Your task to perform on an android device: Go to wifi settings Image 0: 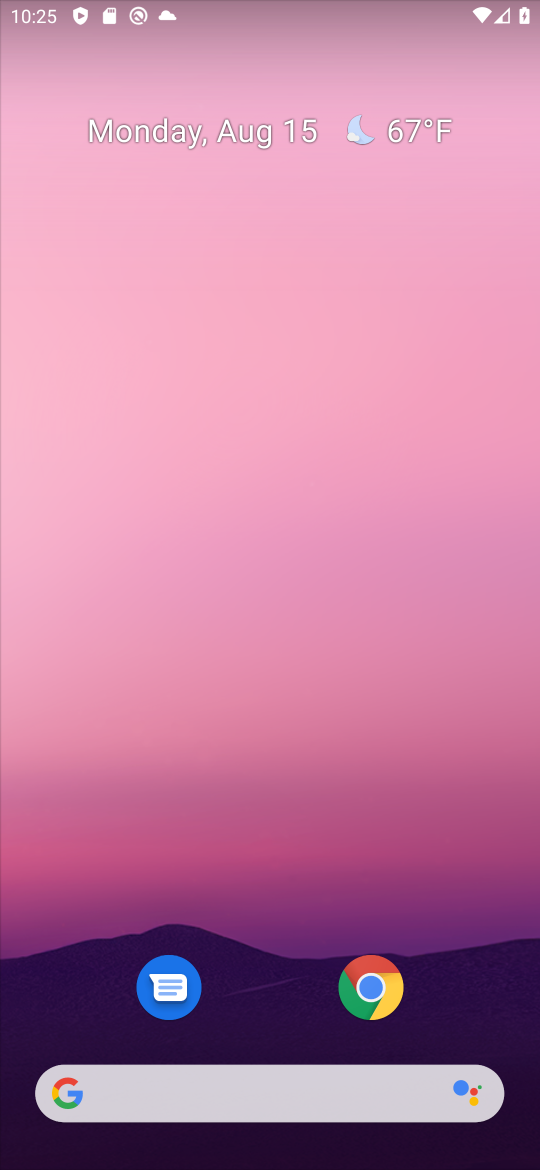
Step 0: drag from (315, 1071) to (449, 35)
Your task to perform on an android device: Go to wifi settings Image 1: 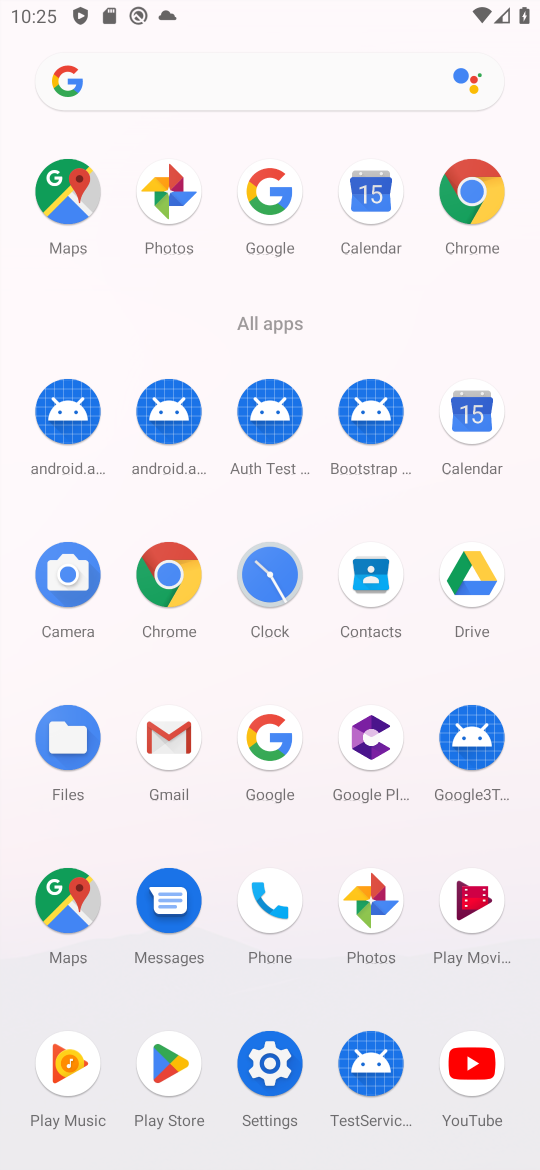
Step 1: click (271, 1071)
Your task to perform on an android device: Go to wifi settings Image 2: 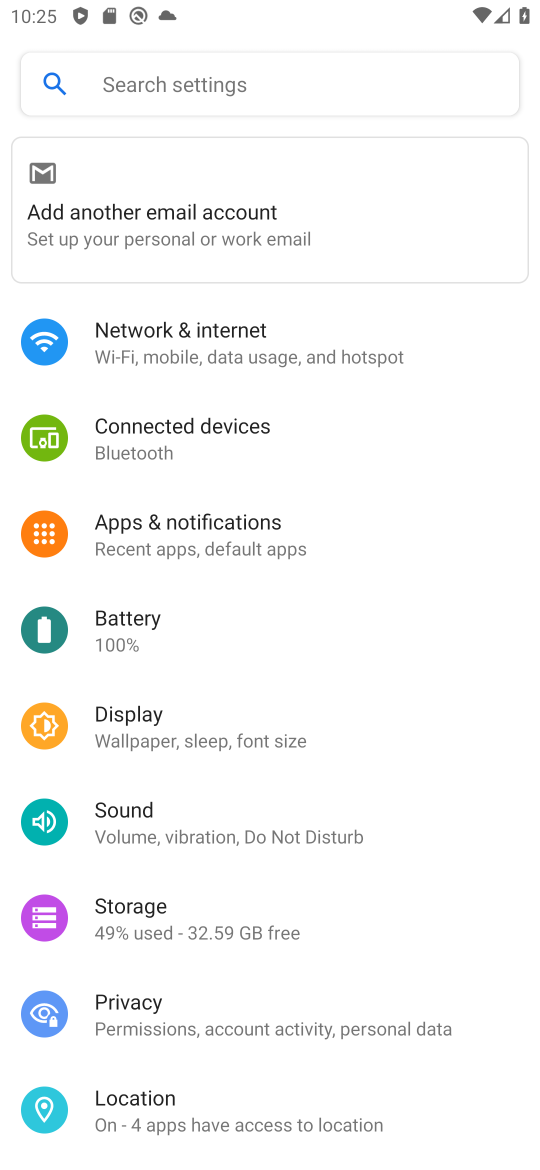
Step 2: click (189, 339)
Your task to perform on an android device: Go to wifi settings Image 3: 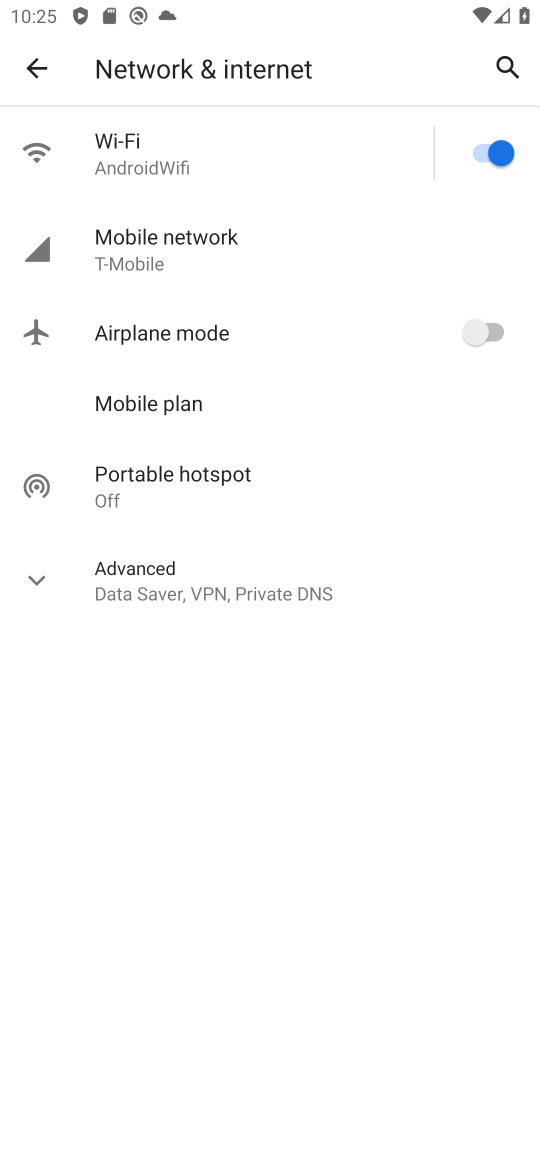
Step 3: click (152, 152)
Your task to perform on an android device: Go to wifi settings Image 4: 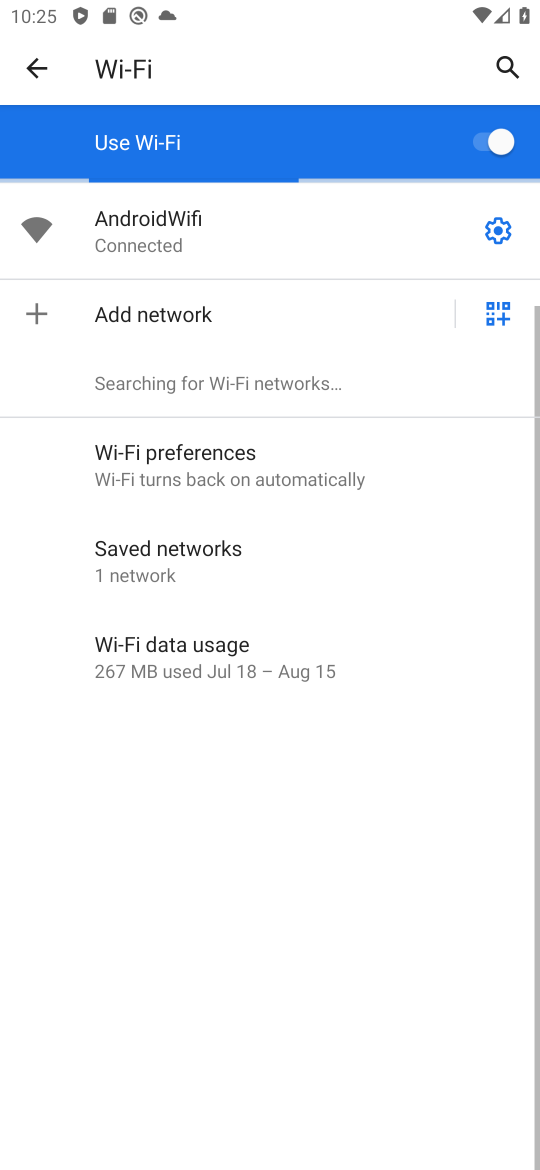
Step 4: task complete